Your task to perform on an android device: Go to CNN.com Image 0: 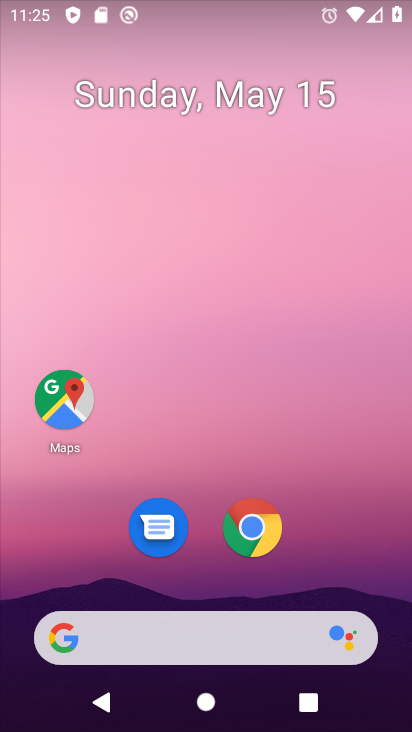
Step 0: click (266, 544)
Your task to perform on an android device: Go to CNN.com Image 1: 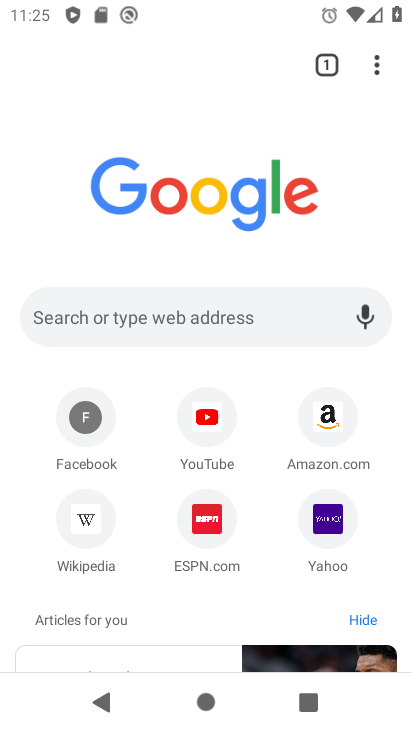
Step 1: click (239, 340)
Your task to perform on an android device: Go to CNN.com Image 2: 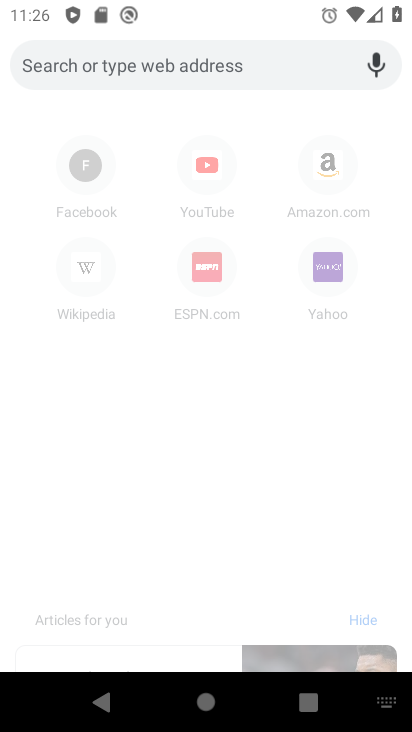
Step 2: type "cnn.com"
Your task to perform on an android device: Go to CNN.com Image 3: 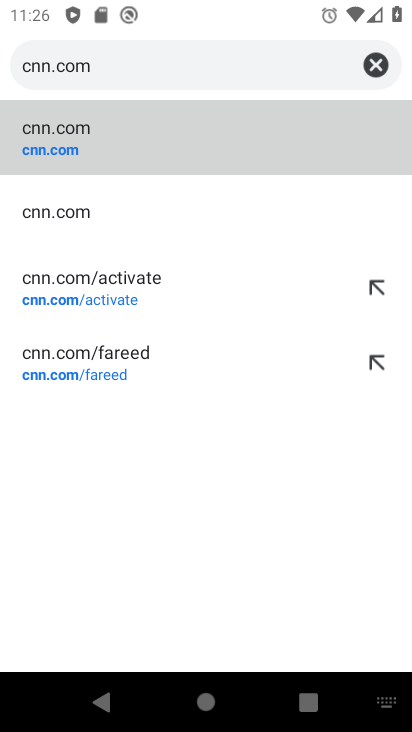
Step 3: click (150, 300)
Your task to perform on an android device: Go to CNN.com Image 4: 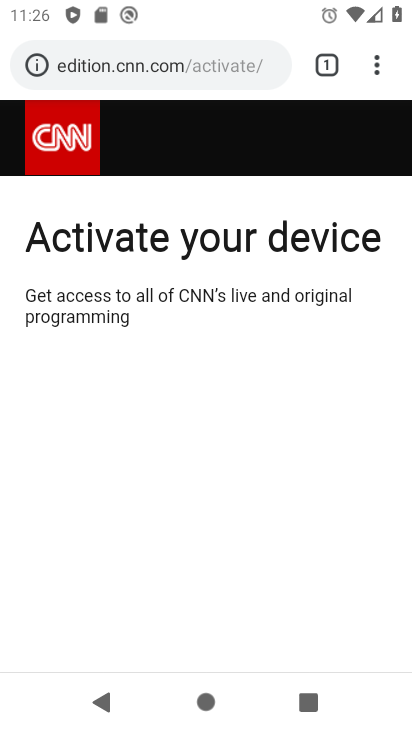
Step 4: task complete